Your task to perform on an android device: install app "Contacts" Image 0: 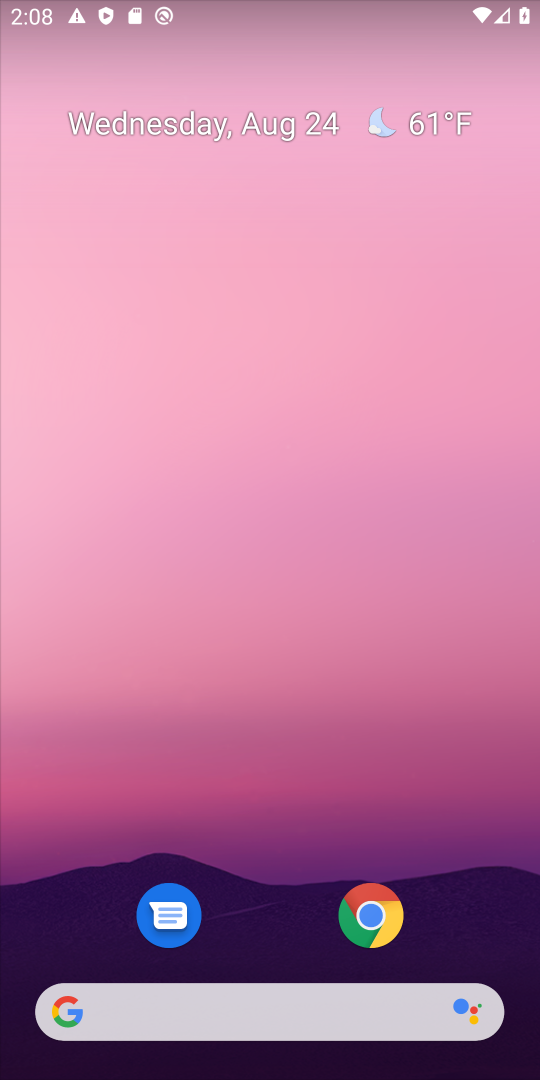
Step 0: drag from (255, 889) to (204, 152)
Your task to perform on an android device: install app "Contacts" Image 1: 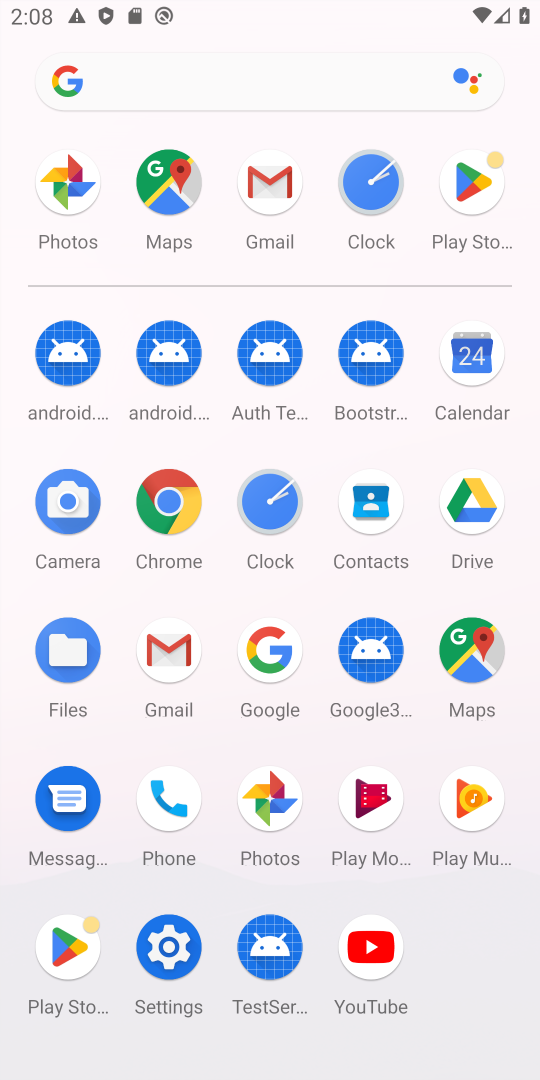
Step 1: click (473, 171)
Your task to perform on an android device: install app "Contacts" Image 2: 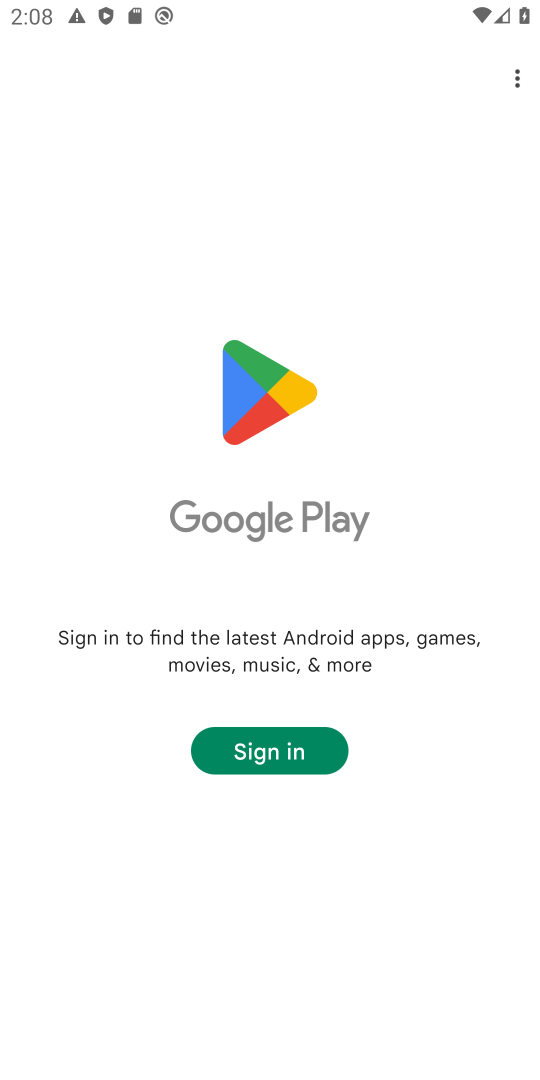
Step 2: task complete